Your task to perform on an android device: turn on location history Image 0: 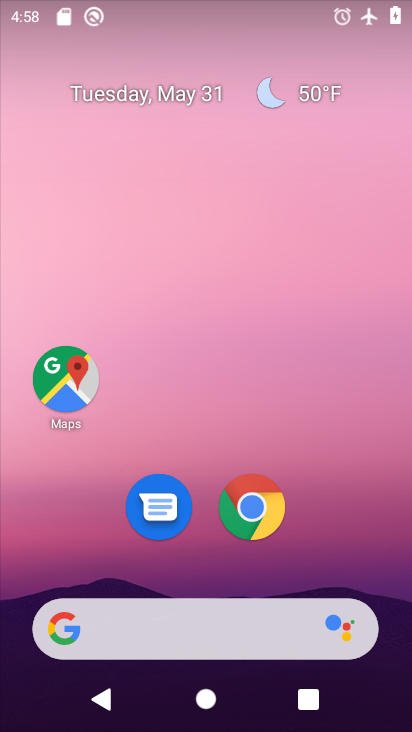
Step 0: drag from (214, 452) to (251, 29)
Your task to perform on an android device: turn on location history Image 1: 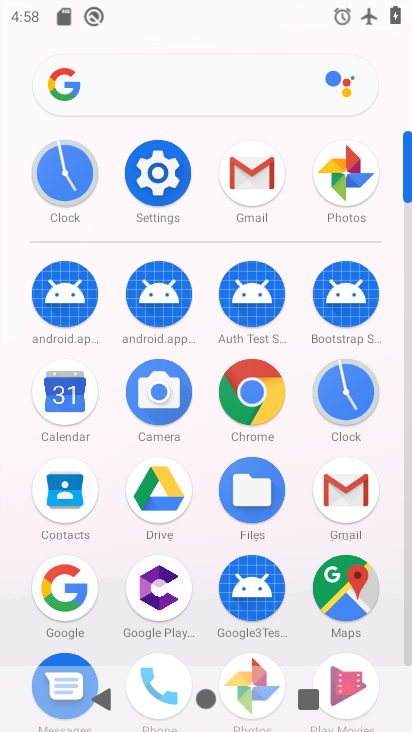
Step 1: click (162, 175)
Your task to perform on an android device: turn on location history Image 2: 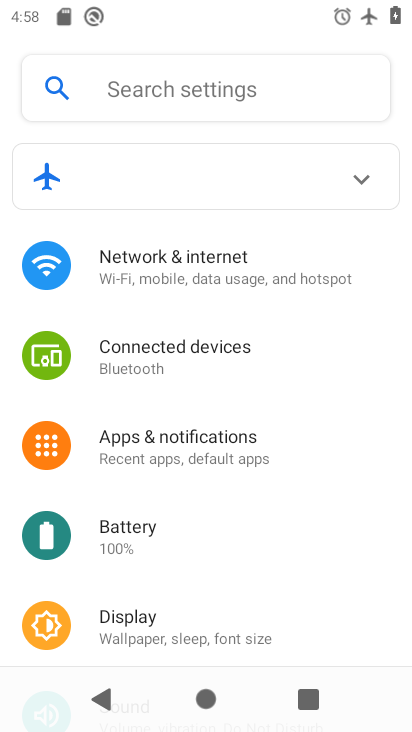
Step 2: drag from (234, 599) to (185, 85)
Your task to perform on an android device: turn on location history Image 3: 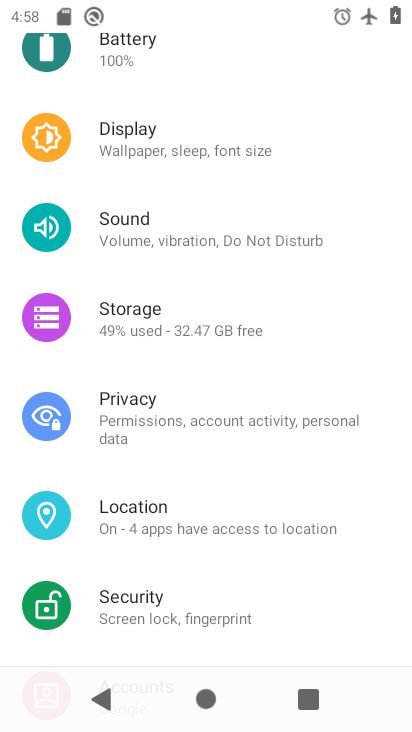
Step 3: click (217, 517)
Your task to perform on an android device: turn on location history Image 4: 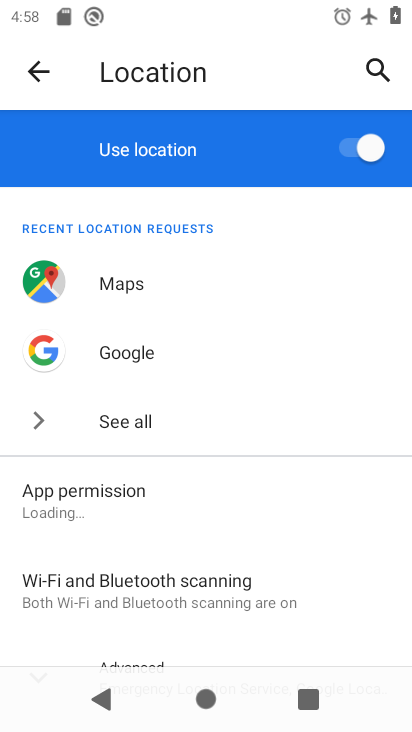
Step 4: drag from (261, 525) to (245, 162)
Your task to perform on an android device: turn on location history Image 5: 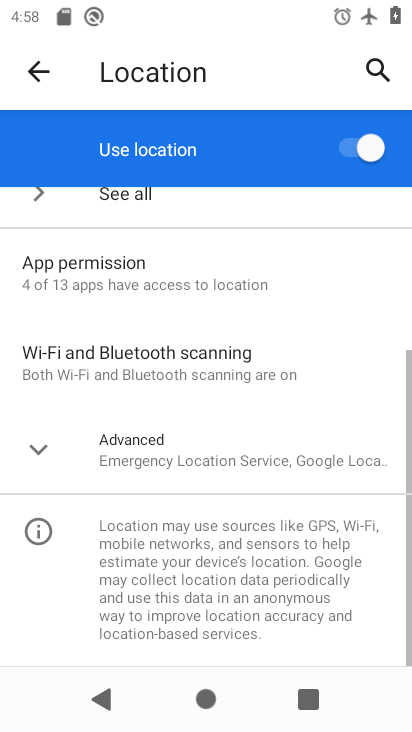
Step 5: click (29, 443)
Your task to perform on an android device: turn on location history Image 6: 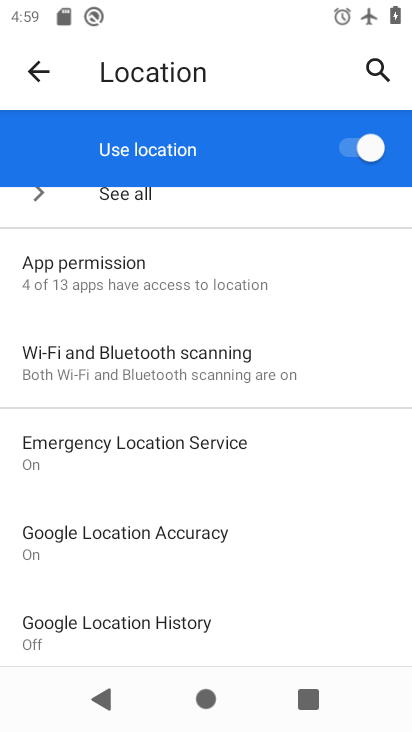
Step 6: drag from (200, 595) to (172, 419)
Your task to perform on an android device: turn on location history Image 7: 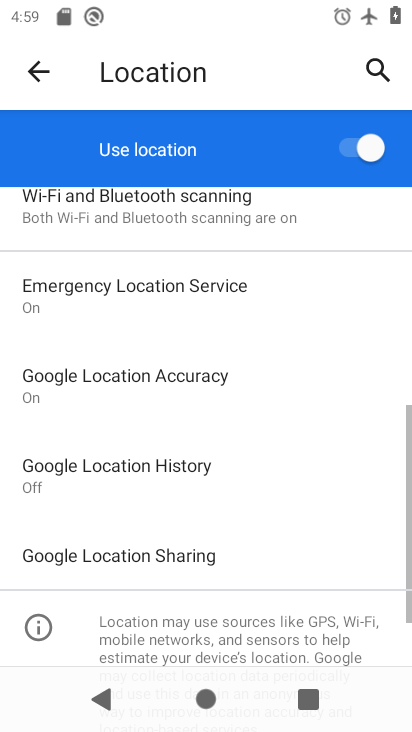
Step 7: click (169, 473)
Your task to perform on an android device: turn on location history Image 8: 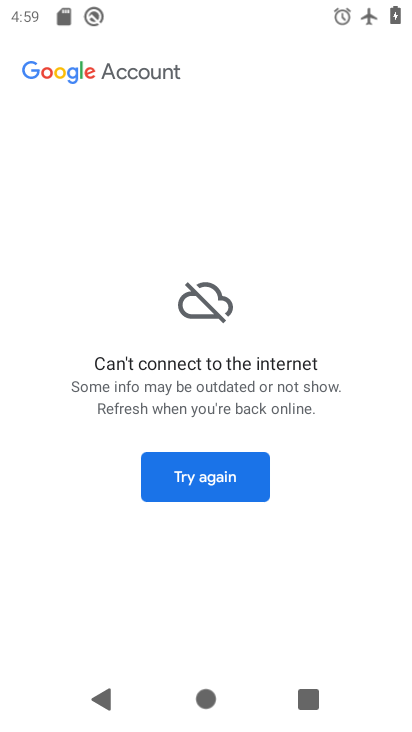
Step 8: click (191, 473)
Your task to perform on an android device: turn on location history Image 9: 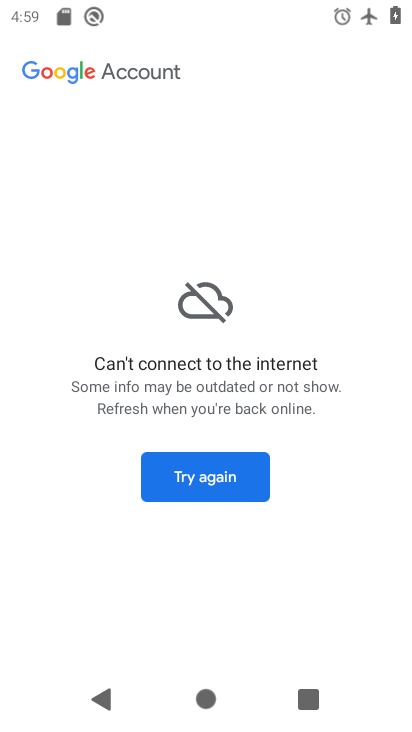
Step 9: task complete